Your task to perform on an android device: Empty the shopping cart on ebay. Add razer deathadder to the cart on ebay, then select checkout. Image 0: 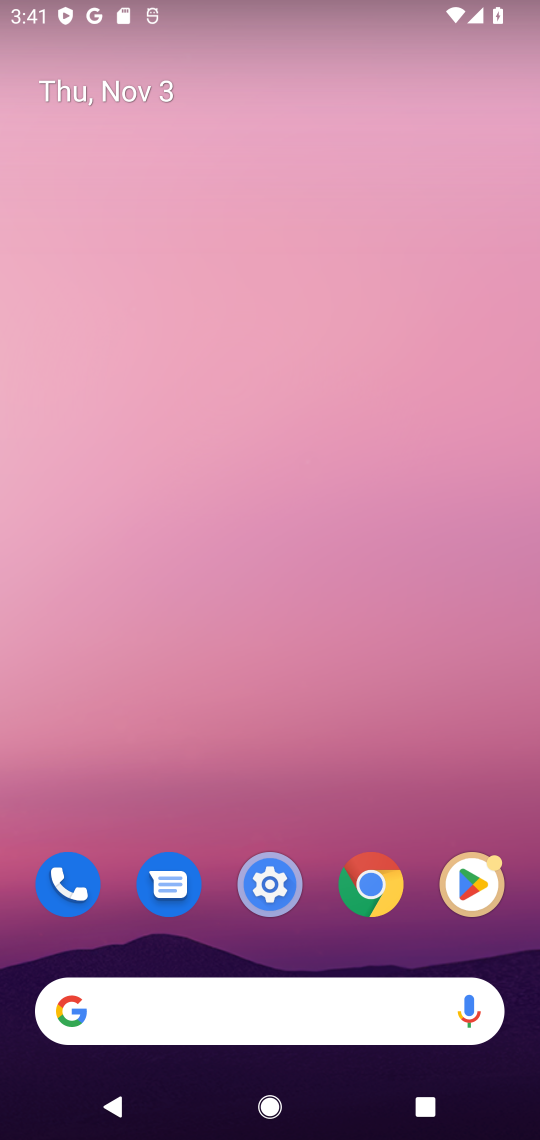
Step 0: press home button
Your task to perform on an android device: Empty the shopping cart on ebay. Add razer deathadder to the cart on ebay, then select checkout. Image 1: 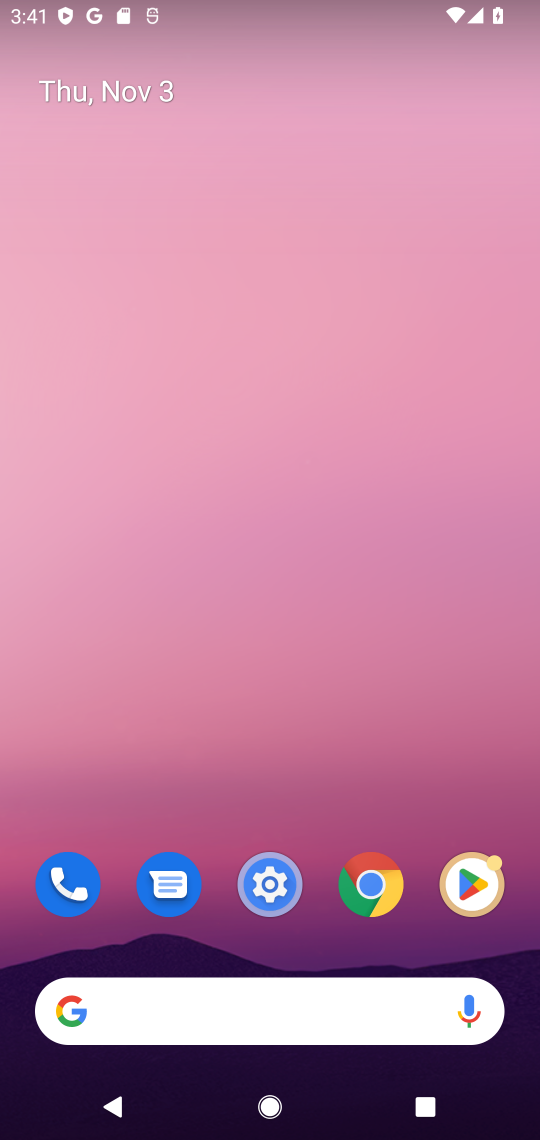
Step 1: click (123, 1002)
Your task to perform on an android device: Empty the shopping cart on ebay. Add razer deathadder to the cart on ebay, then select checkout. Image 2: 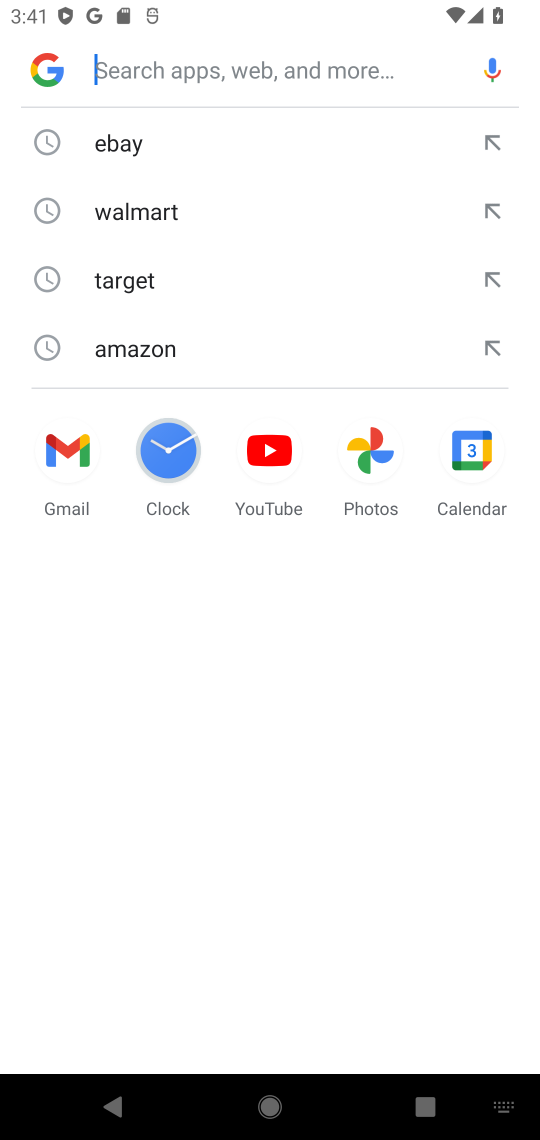
Step 2: type "ebay"
Your task to perform on an android device: Empty the shopping cart on ebay. Add razer deathadder to the cart on ebay, then select checkout. Image 3: 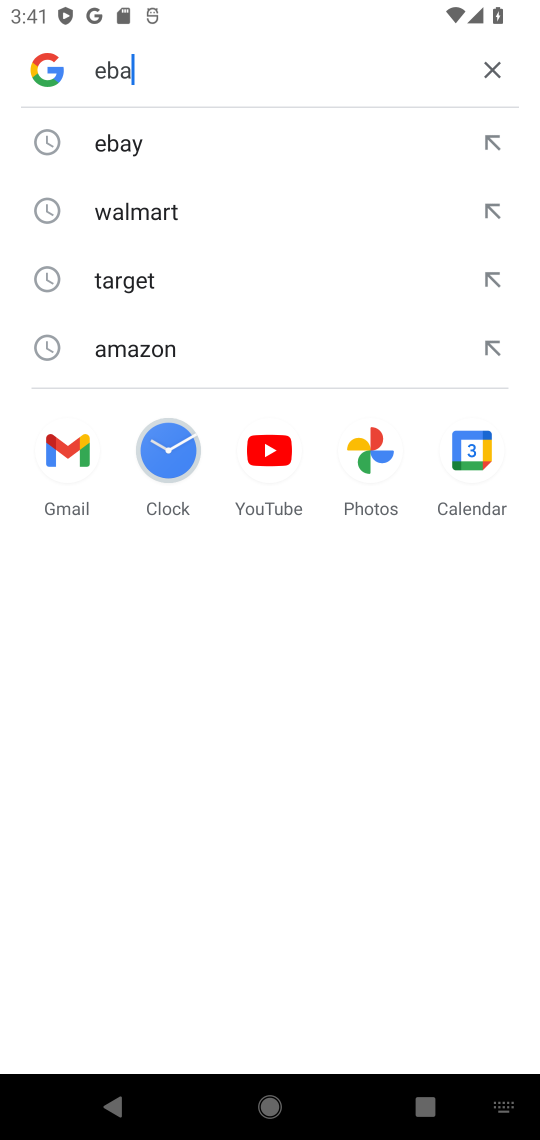
Step 3: press enter
Your task to perform on an android device: Empty the shopping cart on ebay. Add razer deathadder to the cart on ebay, then select checkout. Image 4: 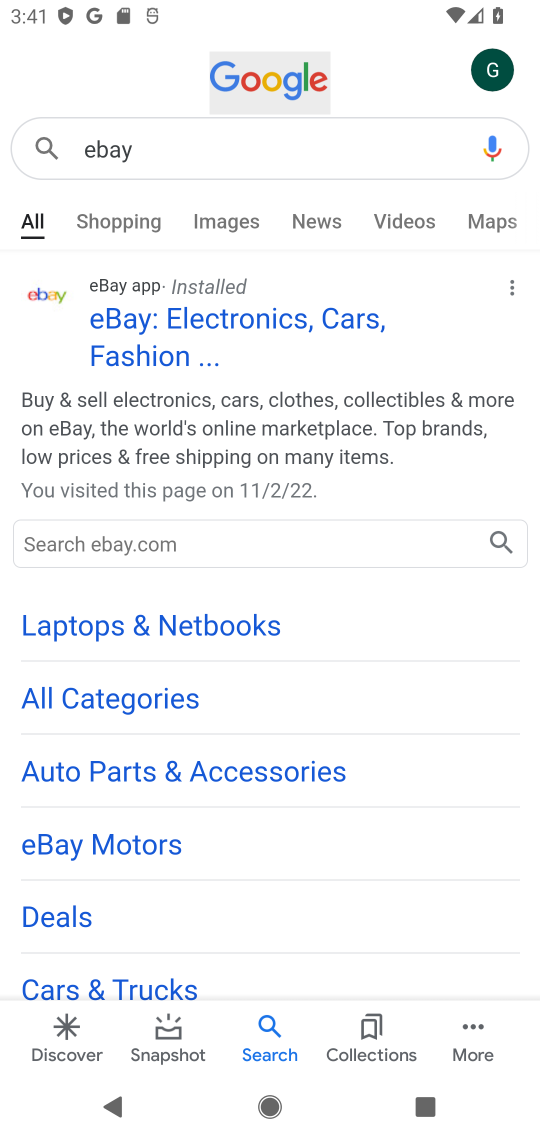
Step 4: click (142, 699)
Your task to perform on an android device: Empty the shopping cart on ebay. Add razer deathadder to the cart on ebay, then select checkout. Image 5: 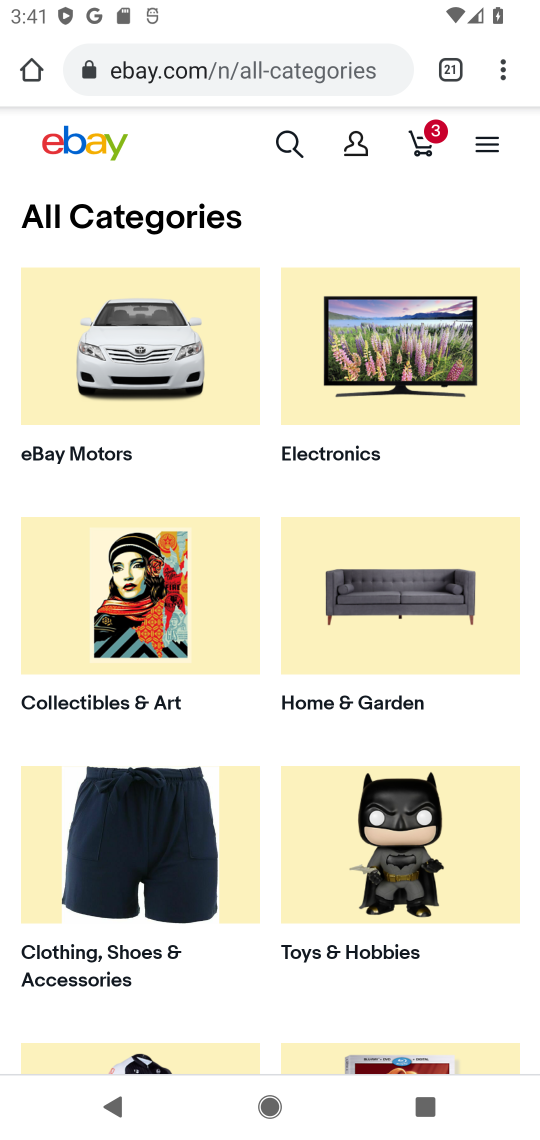
Step 5: click (427, 141)
Your task to perform on an android device: Empty the shopping cart on ebay. Add razer deathadder to the cart on ebay, then select checkout. Image 6: 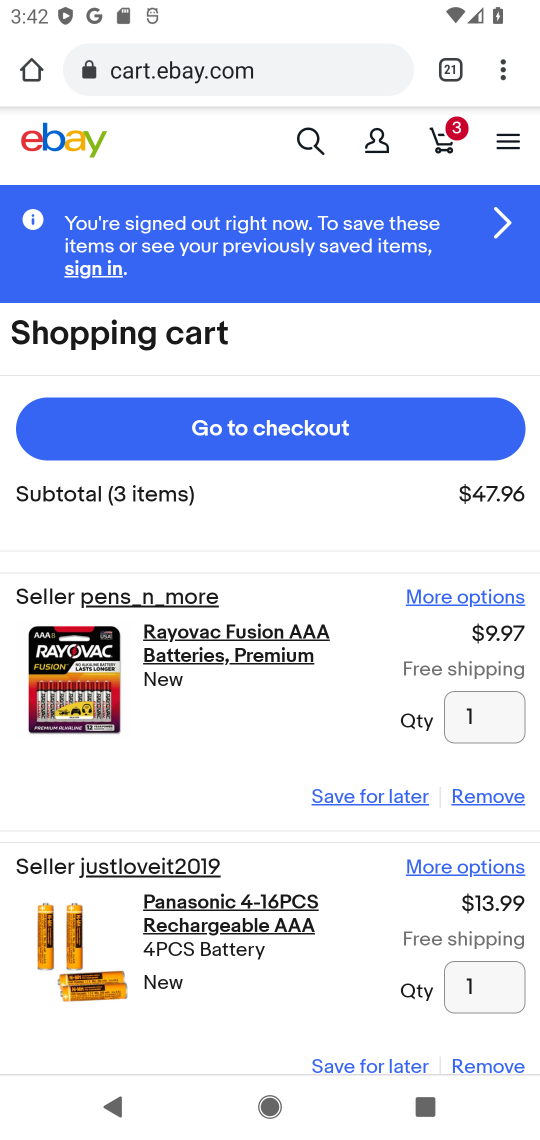
Step 6: click (494, 796)
Your task to perform on an android device: Empty the shopping cart on ebay. Add razer deathadder to the cart on ebay, then select checkout. Image 7: 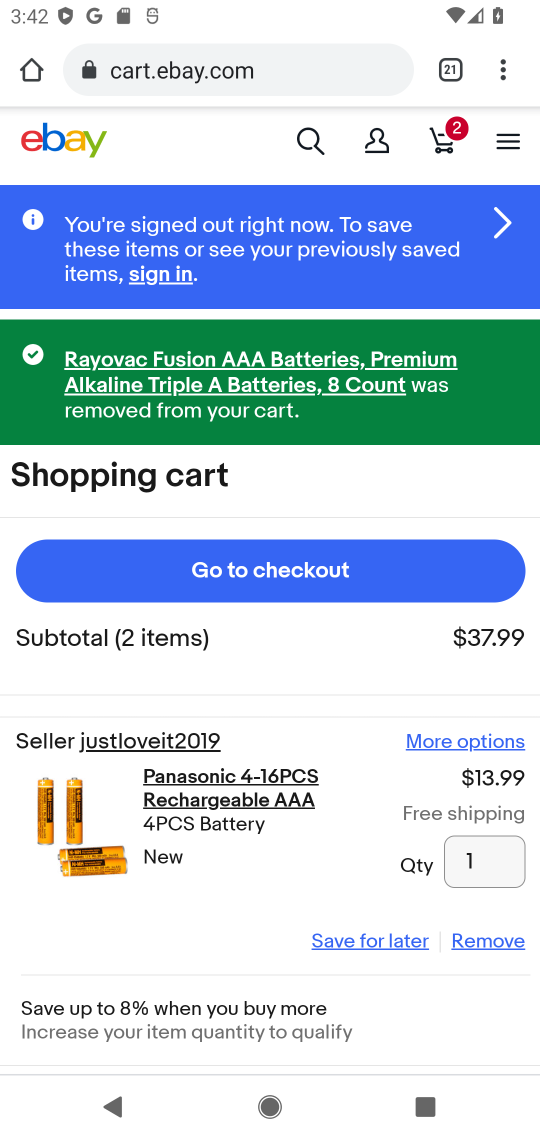
Step 7: click (471, 945)
Your task to perform on an android device: Empty the shopping cart on ebay. Add razer deathadder to the cart on ebay, then select checkout. Image 8: 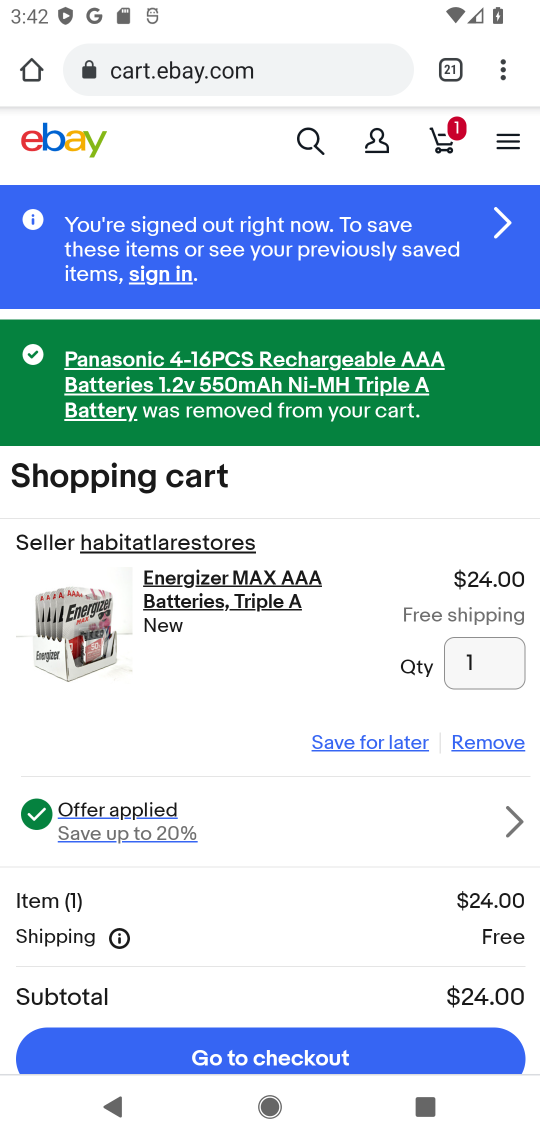
Step 8: click (494, 748)
Your task to perform on an android device: Empty the shopping cart on ebay. Add razer deathadder to the cart on ebay, then select checkout. Image 9: 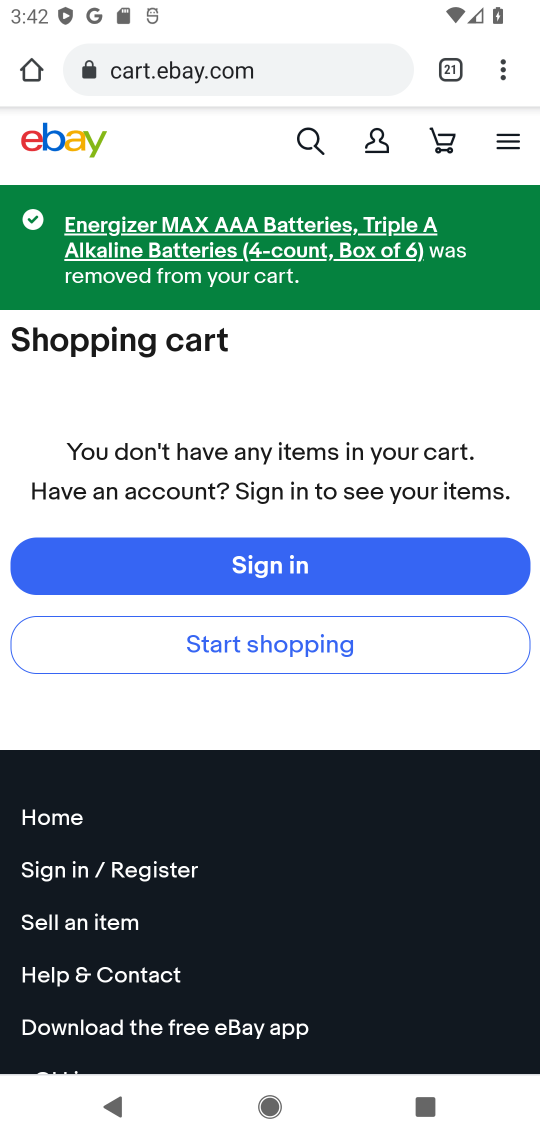
Step 9: click (302, 138)
Your task to perform on an android device: Empty the shopping cart on ebay. Add razer deathadder to the cart on ebay, then select checkout. Image 10: 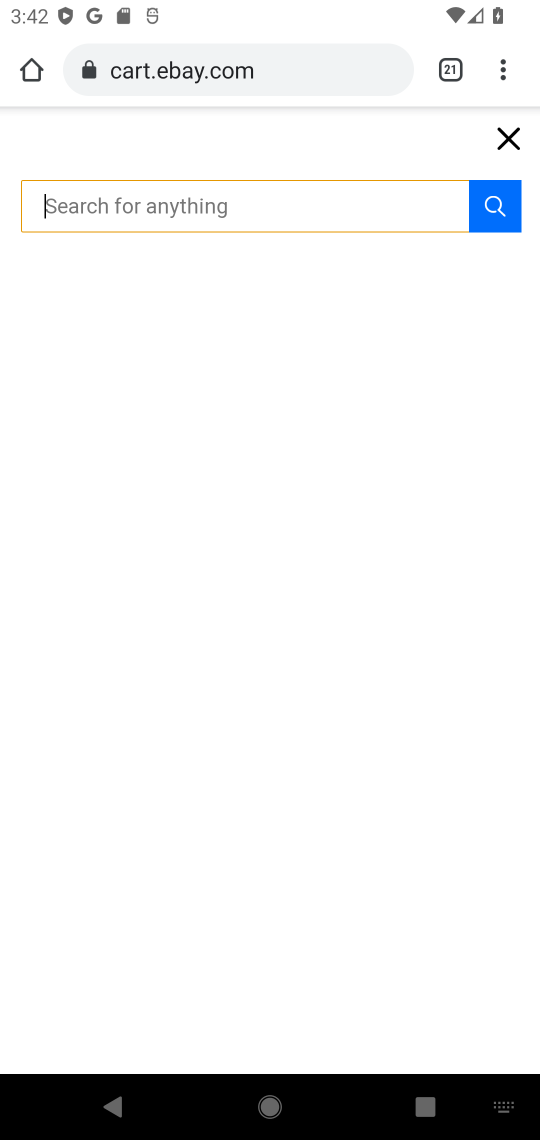
Step 10: type "razer deathadder"
Your task to perform on an android device: Empty the shopping cart on ebay. Add razer deathadder to the cart on ebay, then select checkout. Image 11: 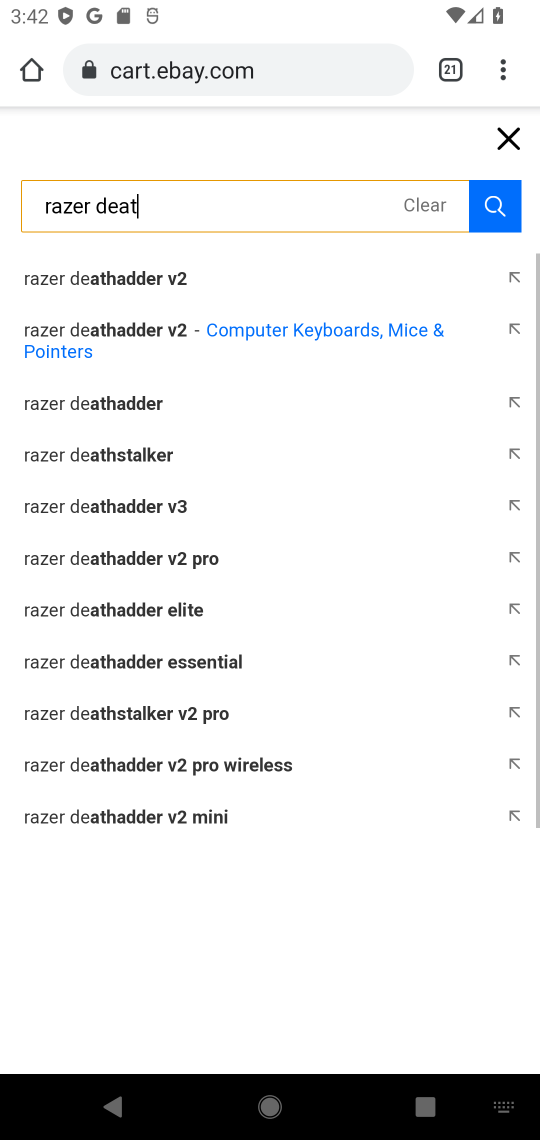
Step 11: press enter
Your task to perform on an android device: Empty the shopping cart on ebay. Add razer deathadder to the cart on ebay, then select checkout. Image 12: 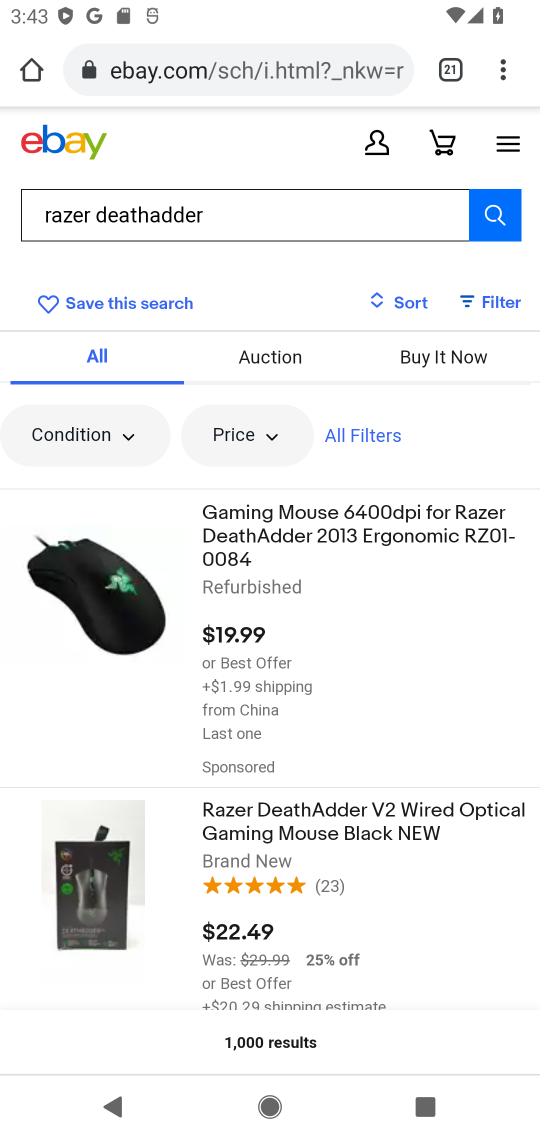
Step 12: click (299, 515)
Your task to perform on an android device: Empty the shopping cart on ebay. Add razer deathadder to the cart on ebay, then select checkout. Image 13: 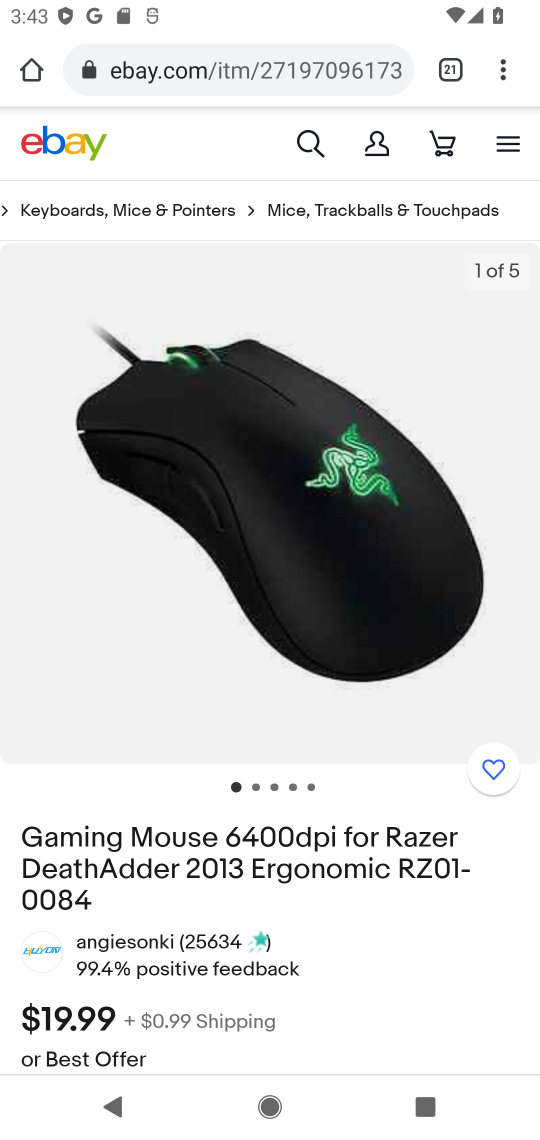
Step 13: drag from (304, 905) to (369, 570)
Your task to perform on an android device: Empty the shopping cart on ebay. Add razer deathadder to the cart on ebay, then select checkout. Image 14: 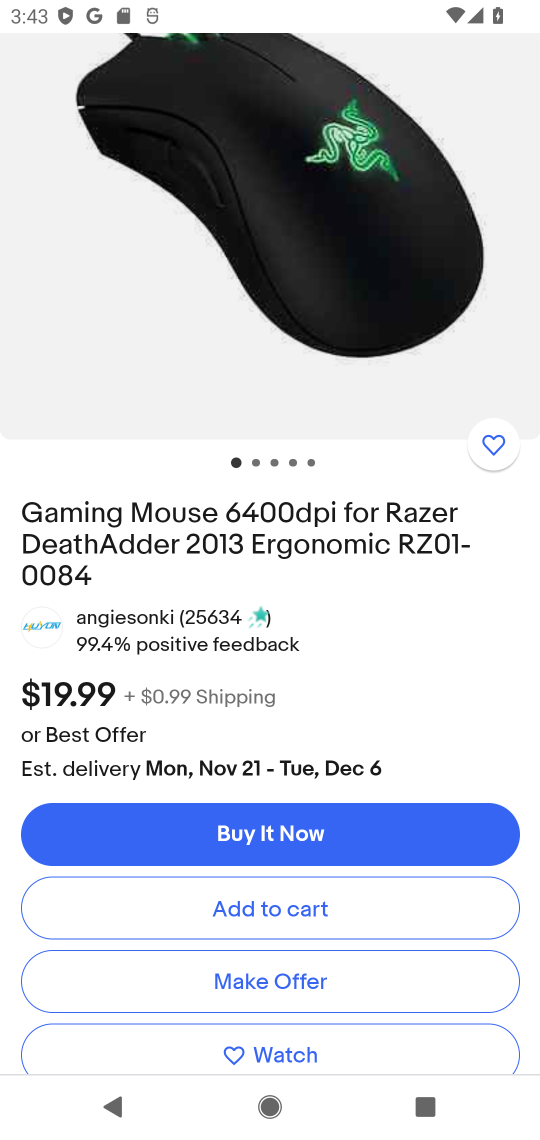
Step 14: click (251, 908)
Your task to perform on an android device: Empty the shopping cart on ebay. Add razer deathadder to the cart on ebay, then select checkout. Image 15: 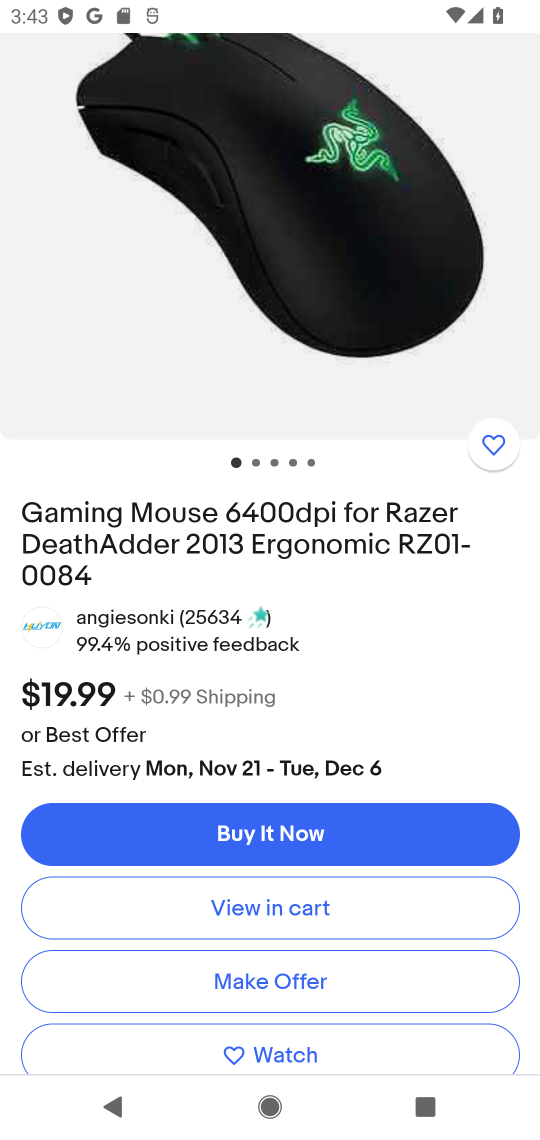
Step 15: click (251, 908)
Your task to perform on an android device: Empty the shopping cart on ebay. Add razer deathadder to the cart on ebay, then select checkout. Image 16: 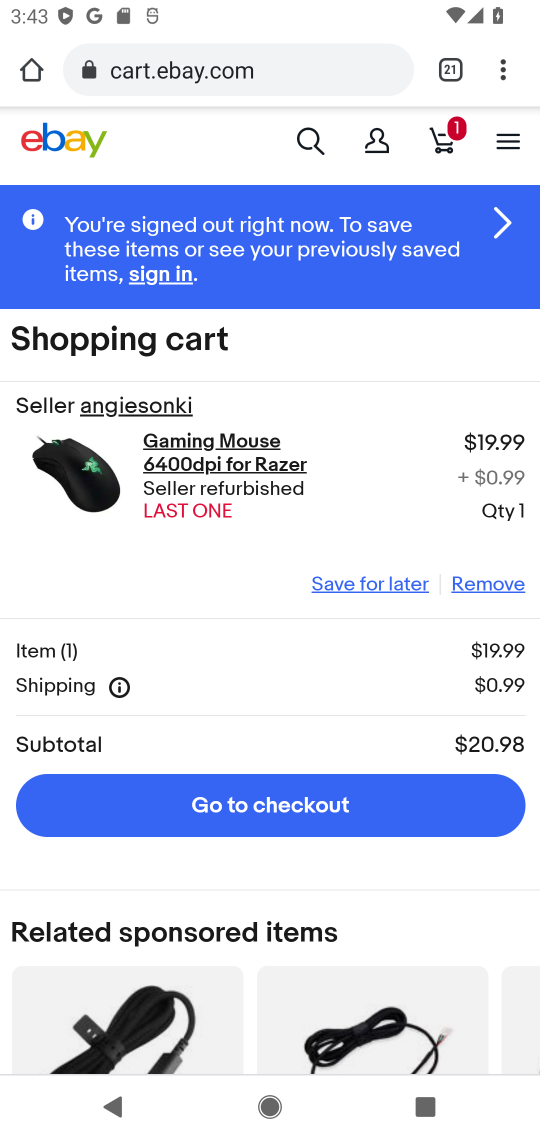
Step 16: click (274, 800)
Your task to perform on an android device: Empty the shopping cart on ebay. Add razer deathadder to the cart on ebay, then select checkout. Image 17: 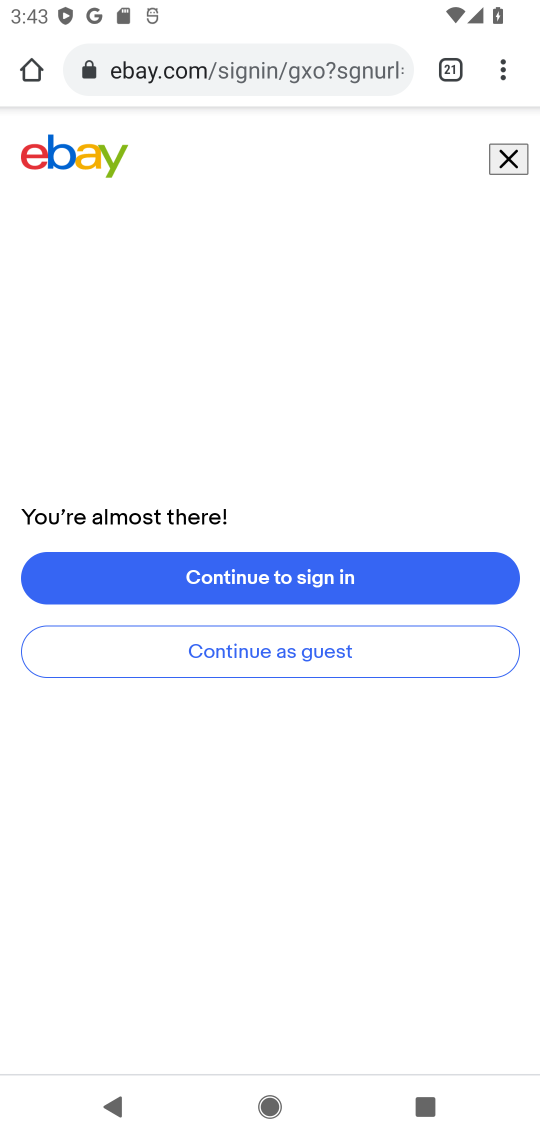
Step 17: task complete